Your task to perform on an android device: turn pop-ups off in chrome Image 0: 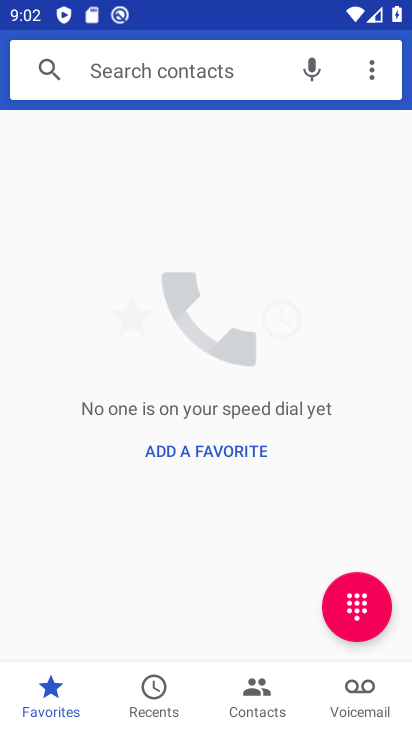
Step 0: press home button
Your task to perform on an android device: turn pop-ups off in chrome Image 1: 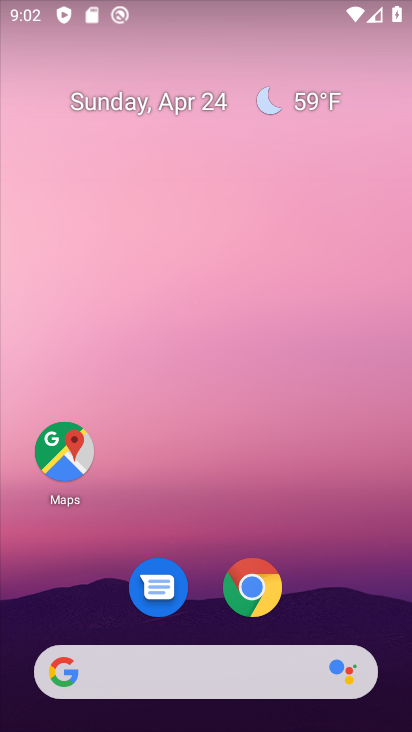
Step 1: click (254, 589)
Your task to perform on an android device: turn pop-ups off in chrome Image 2: 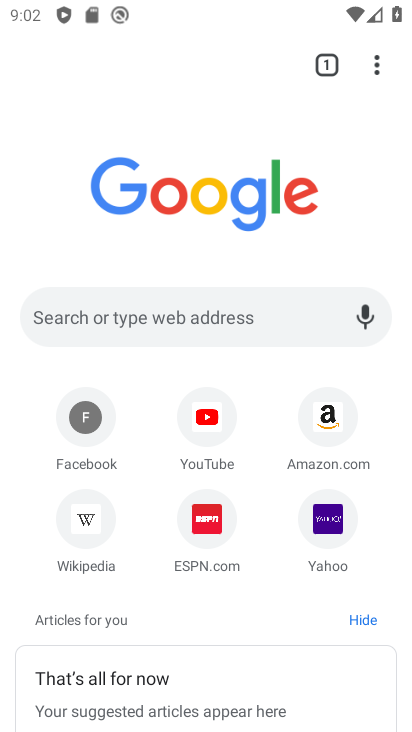
Step 2: click (376, 63)
Your task to perform on an android device: turn pop-ups off in chrome Image 3: 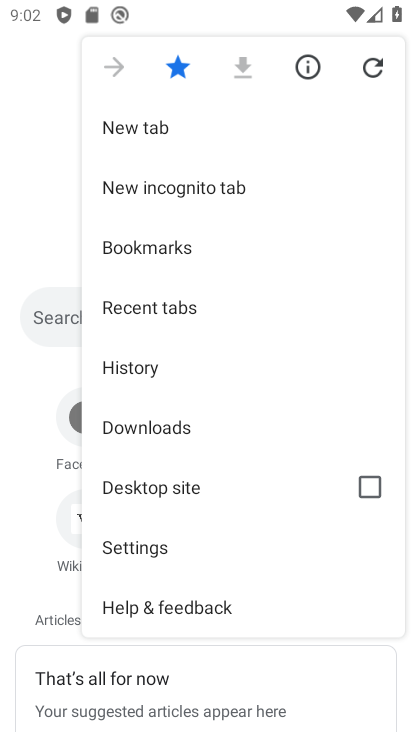
Step 3: click (143, 542)
Your task to perform on an android device: turn pop-ups off in chrome Image 4: 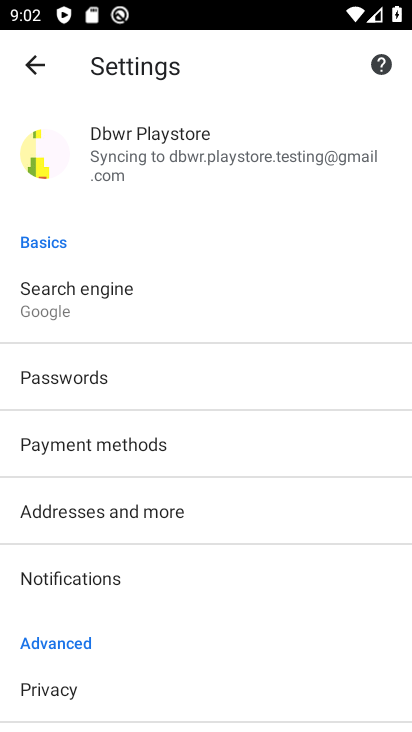
Step 4: drag from (153, 595) to (197, 490)
Your task to perform on an android device: turn pop-ups off in chrome Image 5: 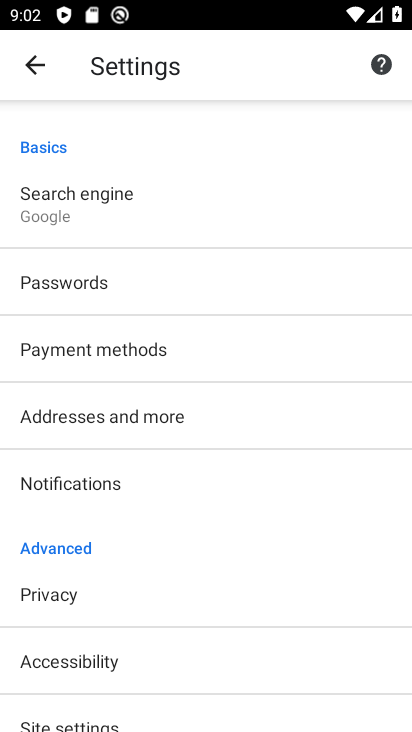
Step 5: drag from (134, 595) to (180, 476)
Your task to perform on an android device: turn pop-ups off in chrome Image 6: 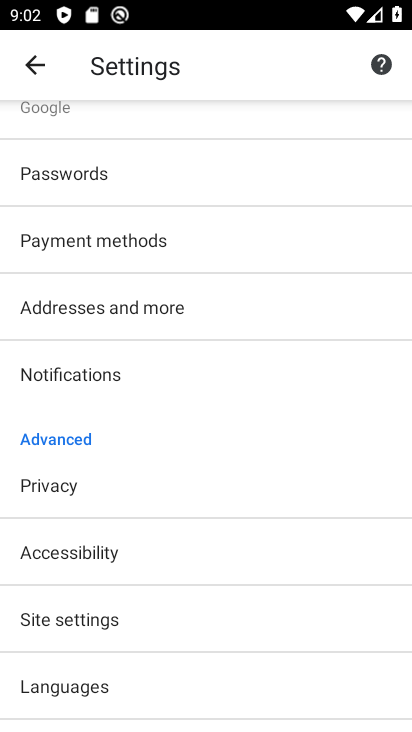
Step 6: click (57, 621)
Your task to perform on an android device: turn pop-ups off in chrome Image 7: 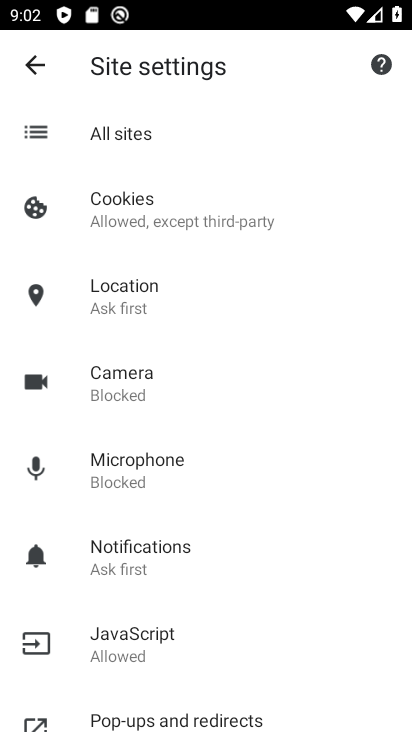
Step 7: drag from (189, 636) to (208, 520)
Your task to perform on an android device: turn pop-ups off in chrome Image 8: 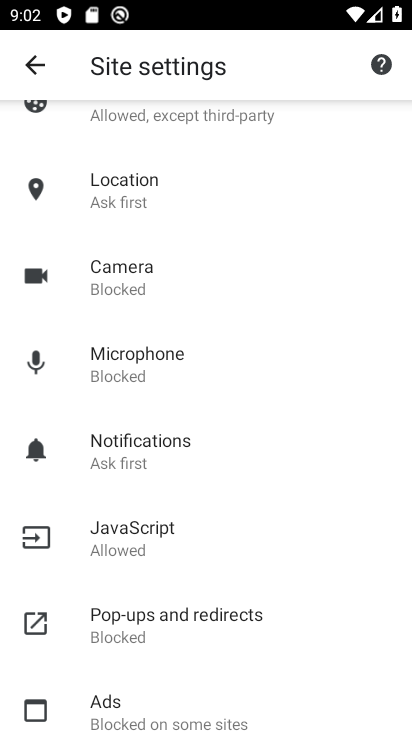
Step 8: click (178, 634)
Your task to perform on an android device: turn pop-ups off in chrome Image 9: 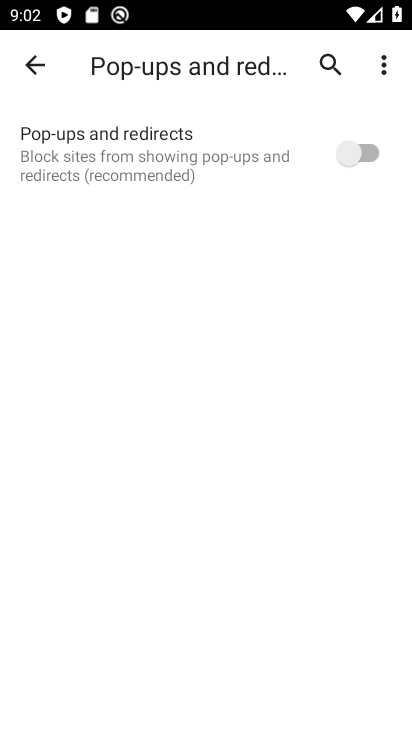
Step 9: task complete